Your task to perform on an android device: Open Chrome and go to settings Image 0: 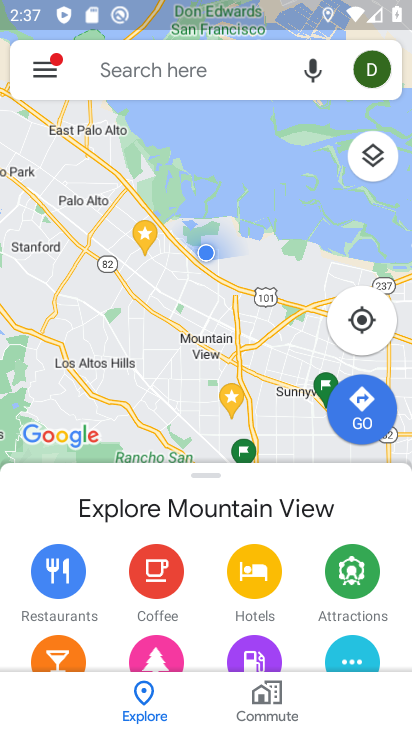
Step 0: press home button
Your task to perform on an android device: Open Chrome and go to settings Image 1: 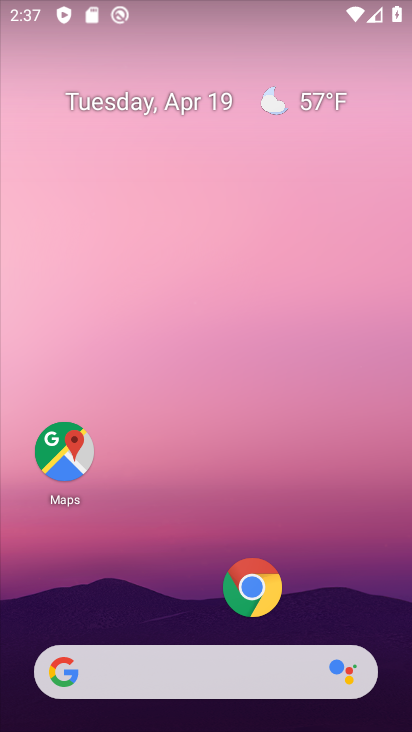
Step 1: click (189, 603)
Your task to perform on an android device: Open Chrome and go to settings Image 2: 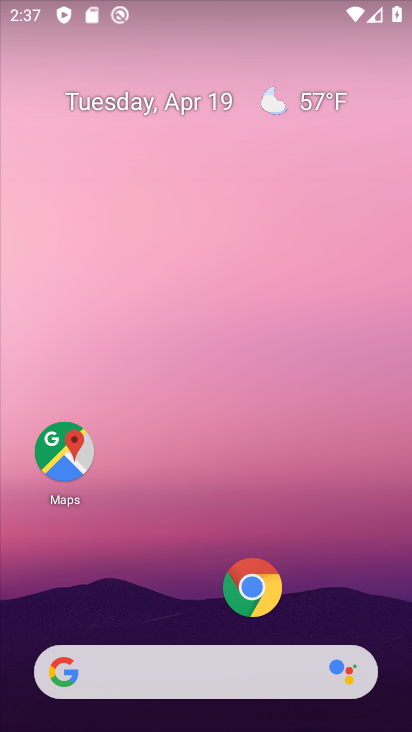
Step 2: click (260, 589)
Your task to perform on an android device: Open Chrome and go to settings Image 3: 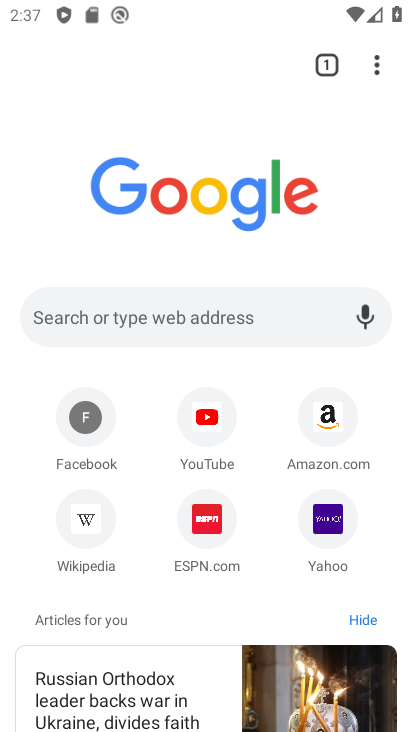
Step 3: click (387, 59)
Your task to perform on an android device: Open Chrome and go to settings Image 4: 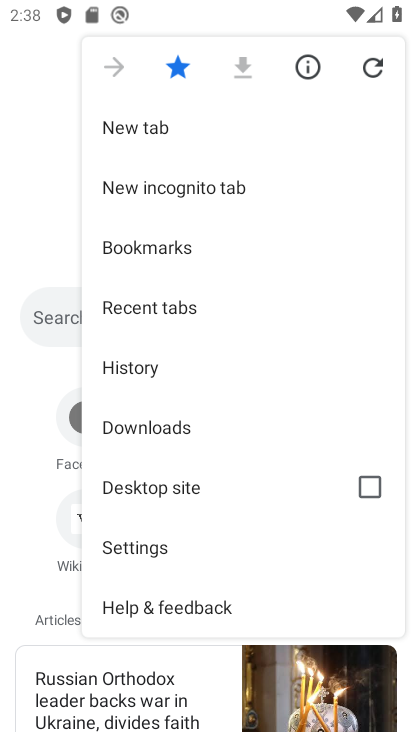
Step 4: click (145, 544)
Your task to perform on an android device: Open Chrome and go to settings Image 5: 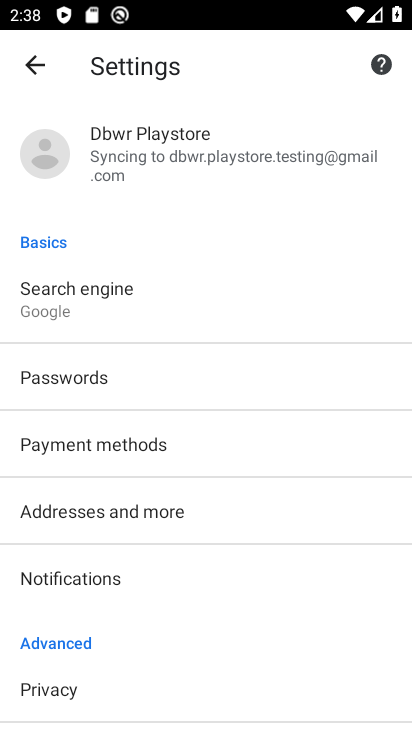
Step 5: task complete